Your task to perform on an android device: read, delete, or share a saved page in the chrome app Image 0: 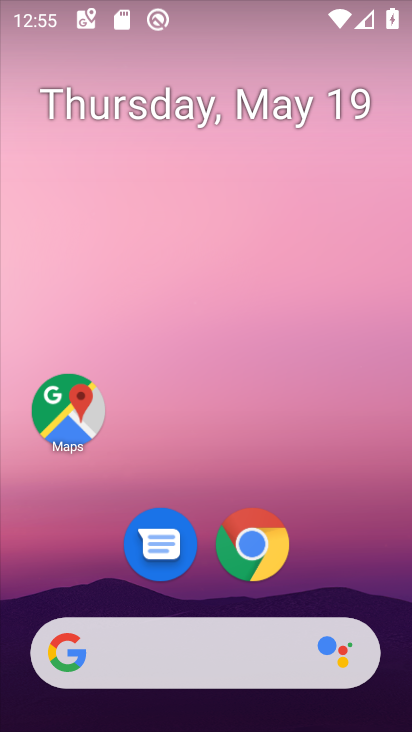
Step 0: drag from (243, 651) to (351, 1)
Your task to perform on an android device: read, delete, or share a saved page in the chrome app Image 1: 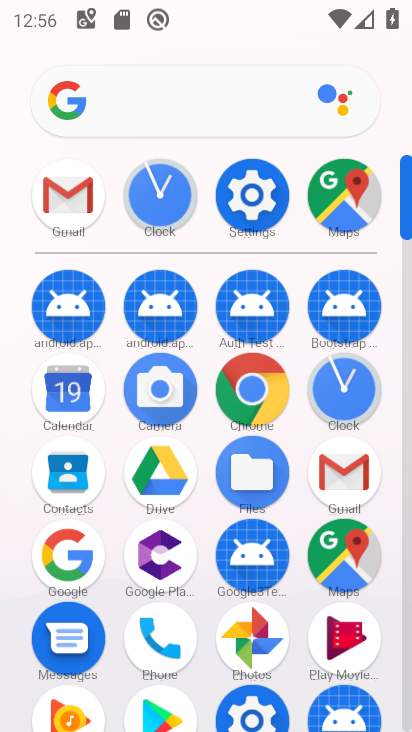
Step 1: click (242, 380)
Your task to perform on an android device: read, delete, or share a saved page in the chrome app Image 2: 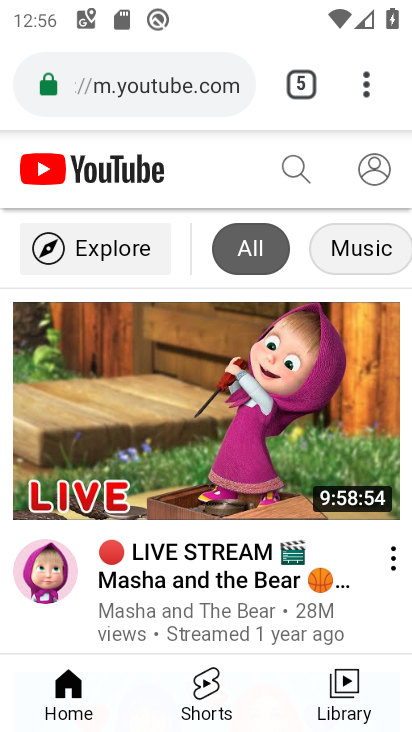
Step 2: click (365, 81)
Your task to perform on an android device: read, delete, or share a saved page in the chrome app Image 3: 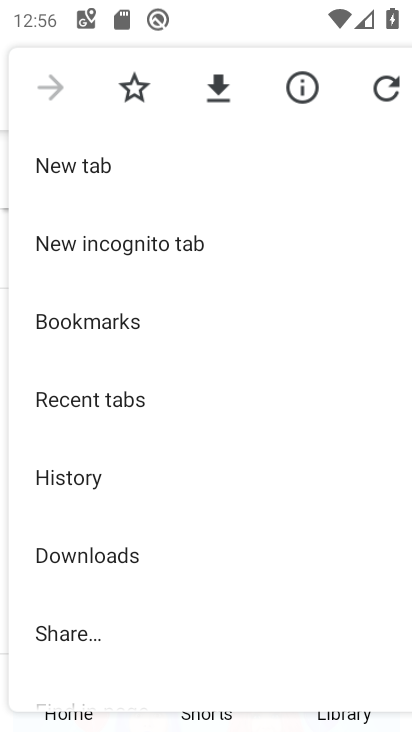
Step 3: click (117, 563)
Your task to perform on an android device: read, delete, or share a saved page in the chrome app Image 4: 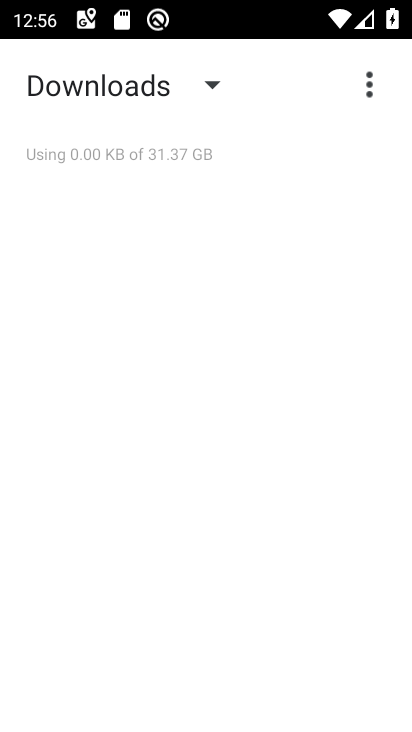
Step 4: task complete